Your task to perform on an android device: Go to Google maps Image 0: 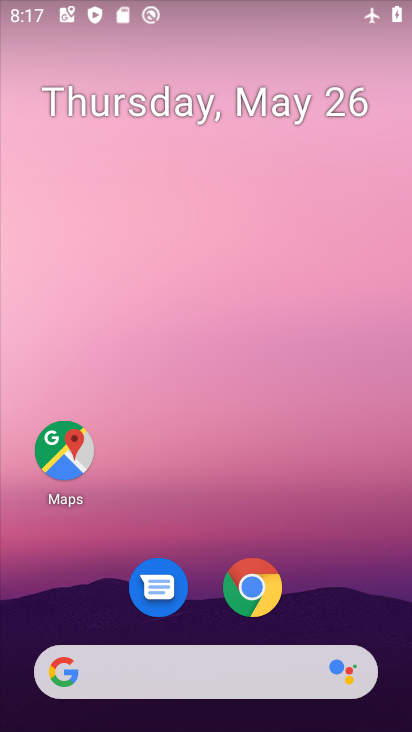
Step 0: click (65, 454)
Your task to perform on an android device: Go to Google maps Image 1: 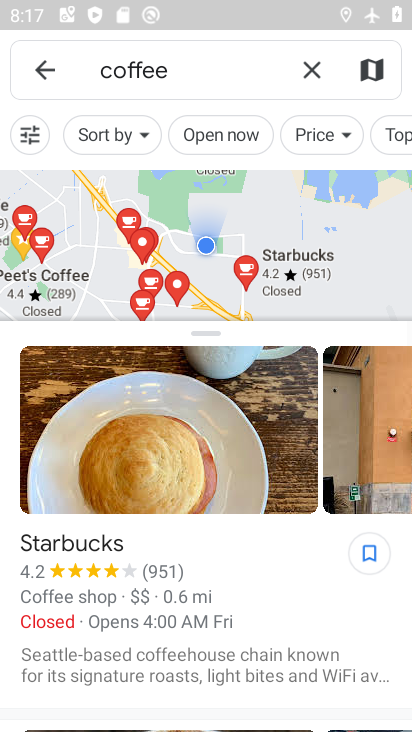
Step 1: task complete